Your task to perform on an android device: empty trash in the gmail app Image 0: 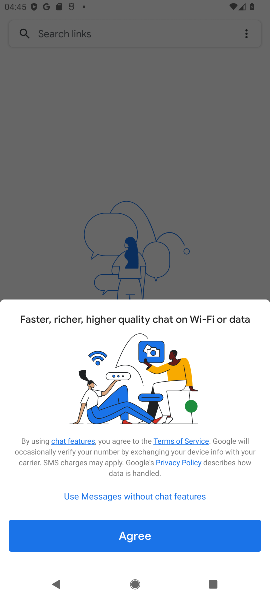
Step 0: press home button
Your task to perform on an android device: empty trash in the gmail app Image 1: 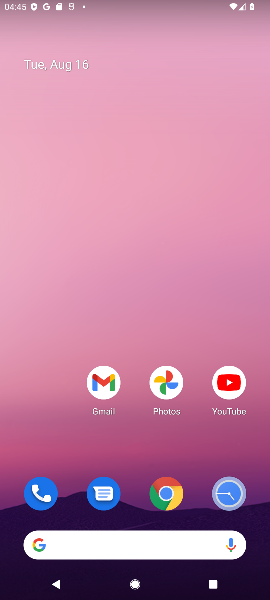
Step 1: drag from (64, 456) to (67, 117)
Your task to perform on an android device: empty trash in the gmail app Image 2: 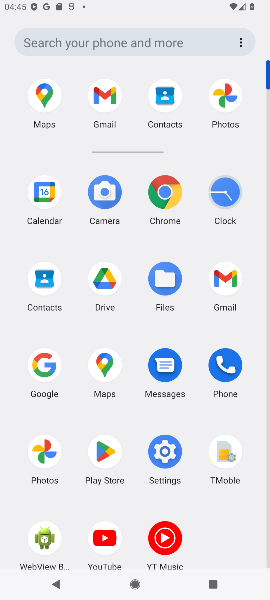
Step 2: click (225, 283)
Your task to perform on an android device: empty trash in the gmail app Image 3: 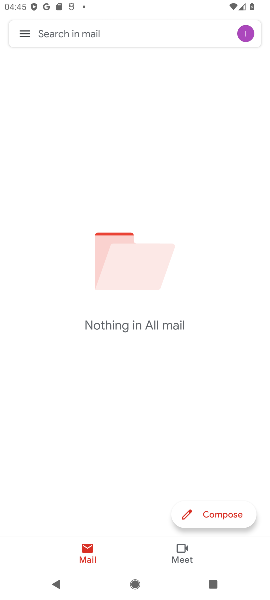
Step 3: click (29, 33)
Your task to perform on an android device: empty trash in the gmail app Image 4: 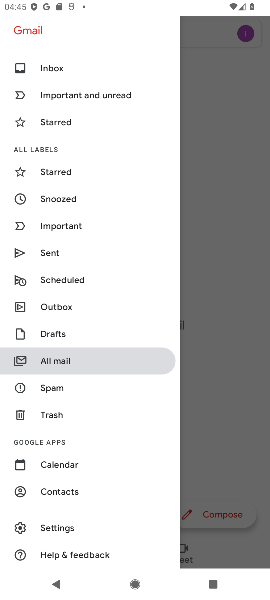
Step 4: drag from (140, 169) to (142, 270)
Your task to perform on an android device: empty trash in the gmail app Image 5: 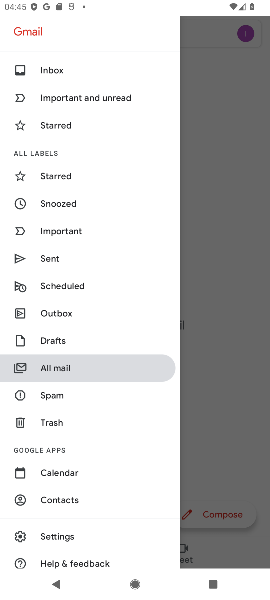
Step 5: drag from (140, 275) to (153, 193)
Your task to perform on an android device: empty trash in the gmail app Image 6: 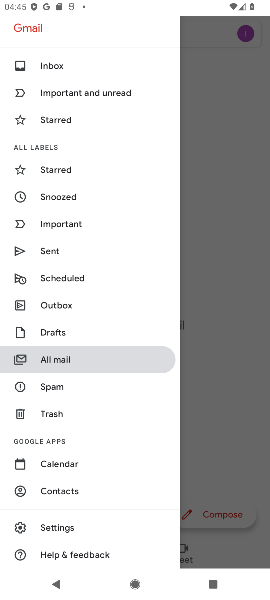
Step 6: click (84, 409)
Your task to perform on an android device: empty trash in the gmail app Image 7: 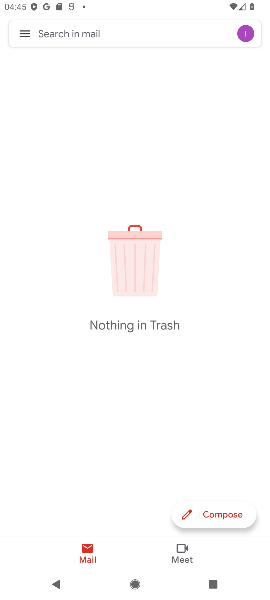
Step 7: task complete